Your task to perform on an android device: allow cookies in the chrome app Image 0: 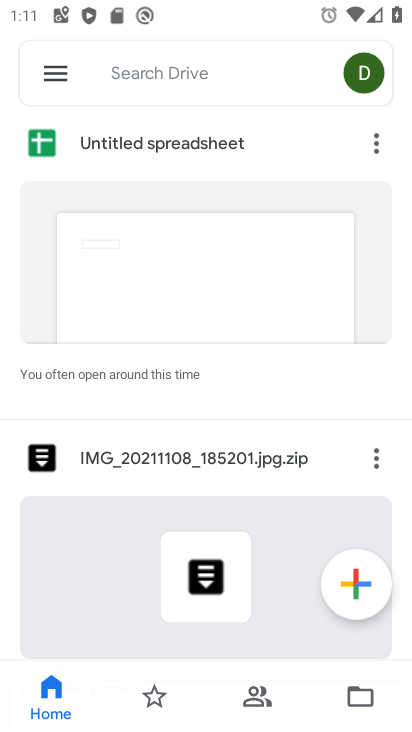
Step 0: press home button
Your task to perform on an android device: allow cookies in the chrome app Image 1: 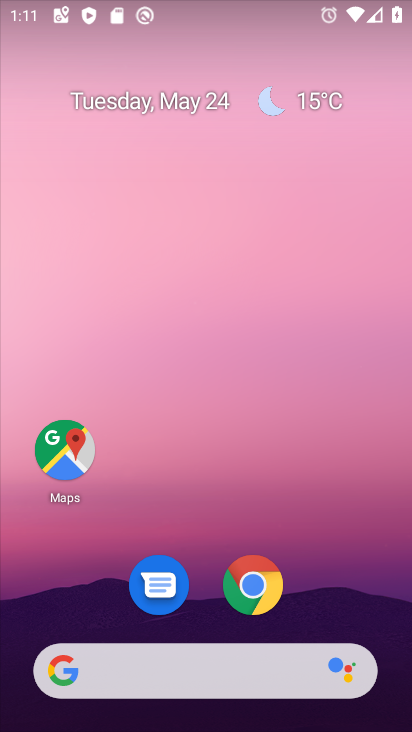
Step 1: click (256, 575)
Your task to perform on an android device: allow cookies in the chrome app Image 2: 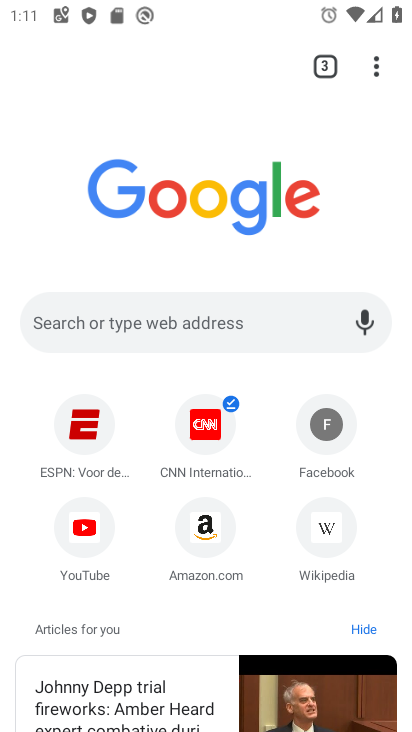
Step 2: click (373, 73)
Your task to perform on an android device: allow cookies in the chrome app Image 3: 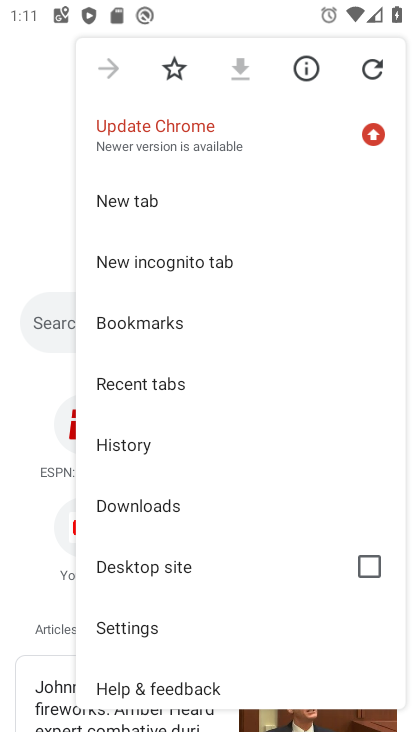
Step 3: click (151, 617)
Your task to perform on an android device: allow cookies in the chrome app Image 4: 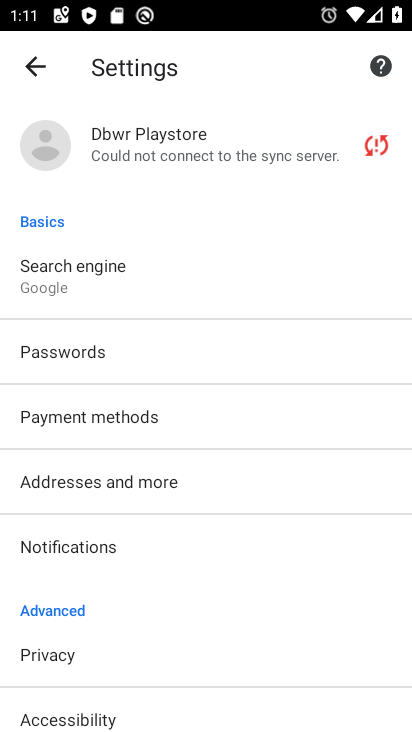
Step 4: drag from (234, 537) to (267, 323)
Your task to perform on an android device: allow cookies in the chrome app Image 5: 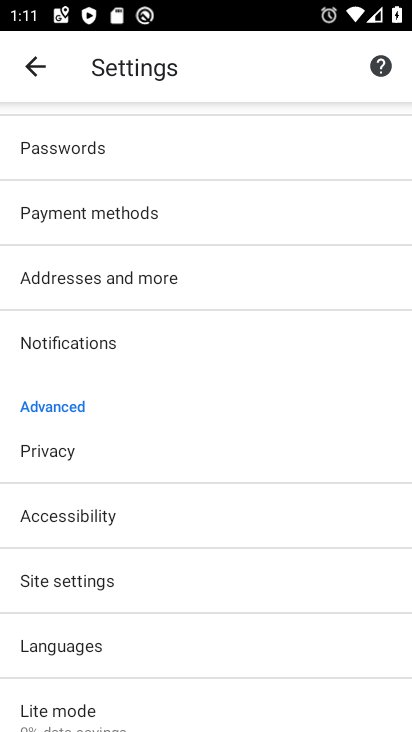
Step 5: click (202, 577)
Your task to perform on an android device: allow cookies in the chrome app Image 6: 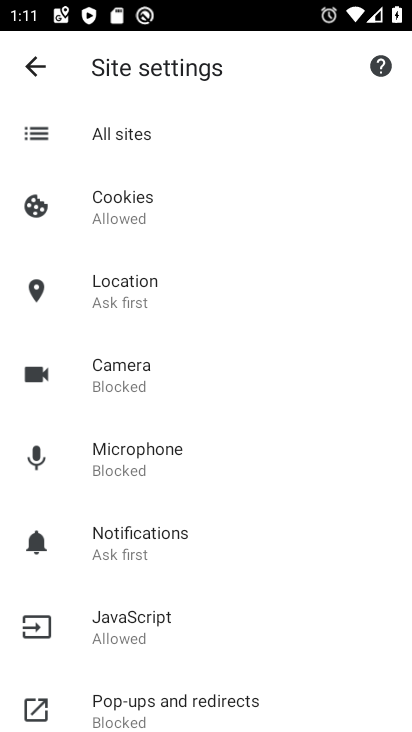
Step 6: task complete